Your task to perform on an android device: Go to Google Image 0: 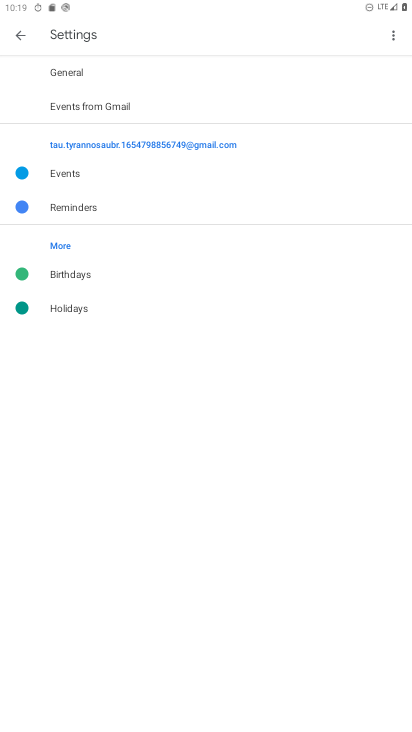
Step 0: press home button
Your task to perform on an android device: Go to Google Image 1: 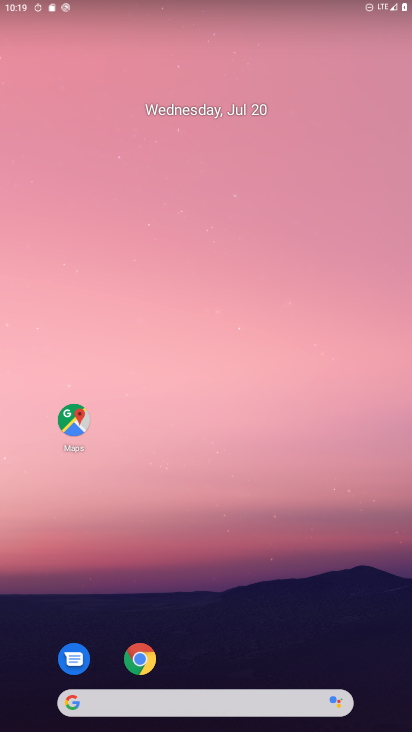
Step 1: drag from (316, 612) to (180, 0)
Your task to perform on an android device: Go to Google Image 2: 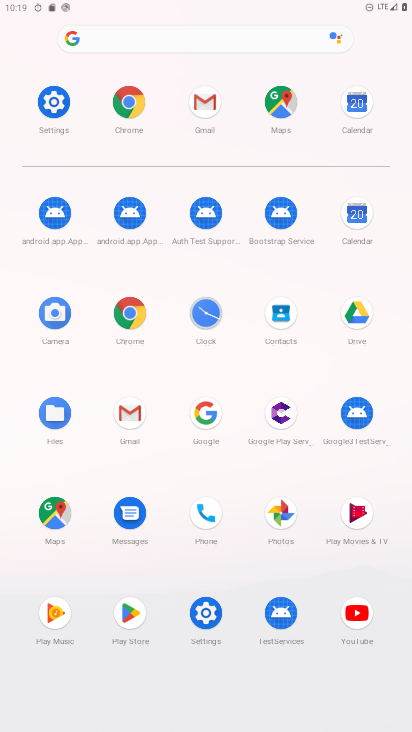
Step 2: click (208, 402)
Your task to perform on an android device: Go to Google Image 3: 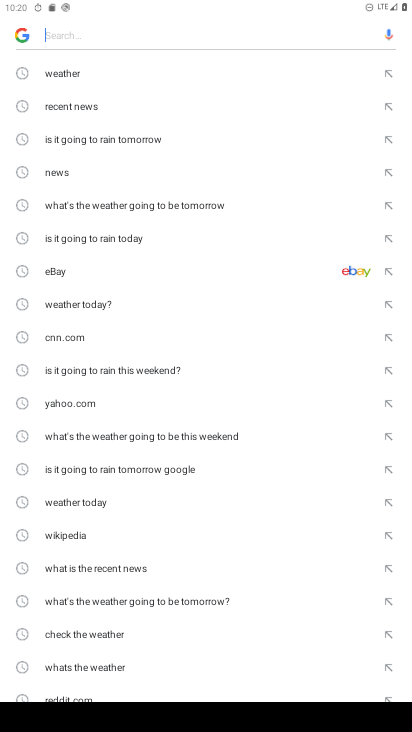
Step 3: task complete